Your task to perform on an android device: turn off wifi Image 0: 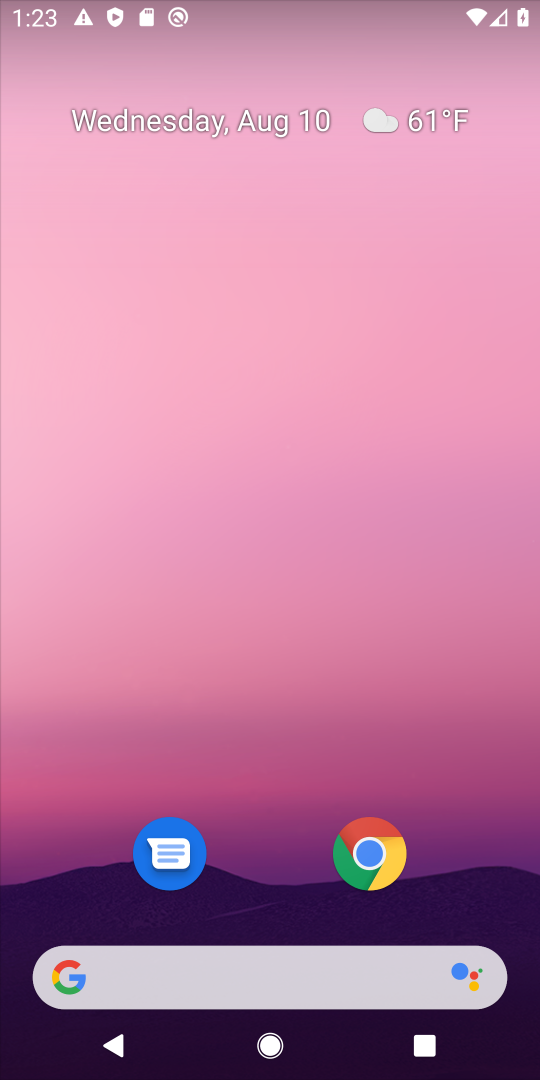
Step 0: drag from (305, 690) to (269, 248)
Your task to perform on an android device: turn off wifi Image 1: 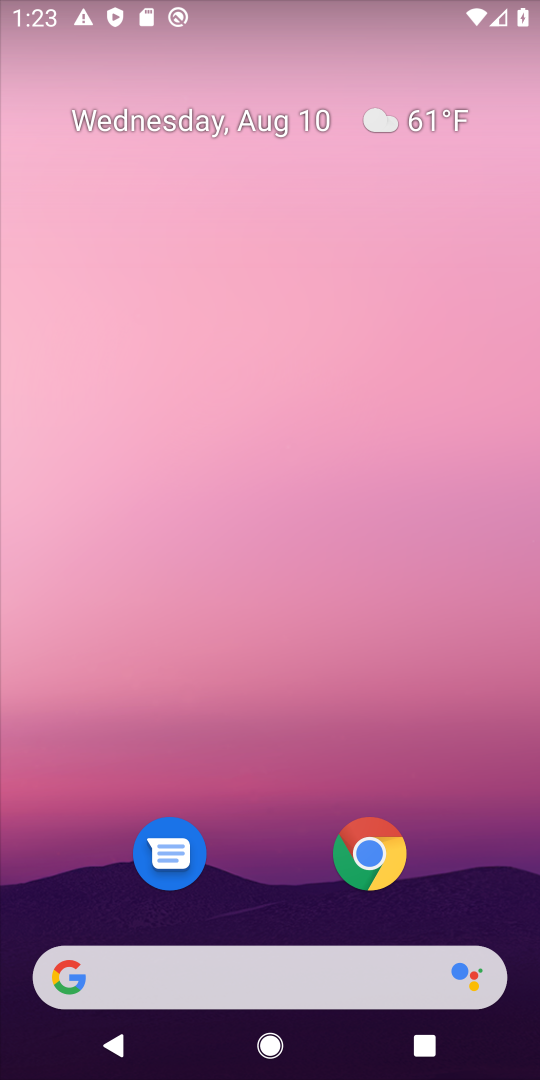
Step 1: drag from (278, 751) to (271, 155)
Your task to perform on an android device: turn off wifi Image 2: 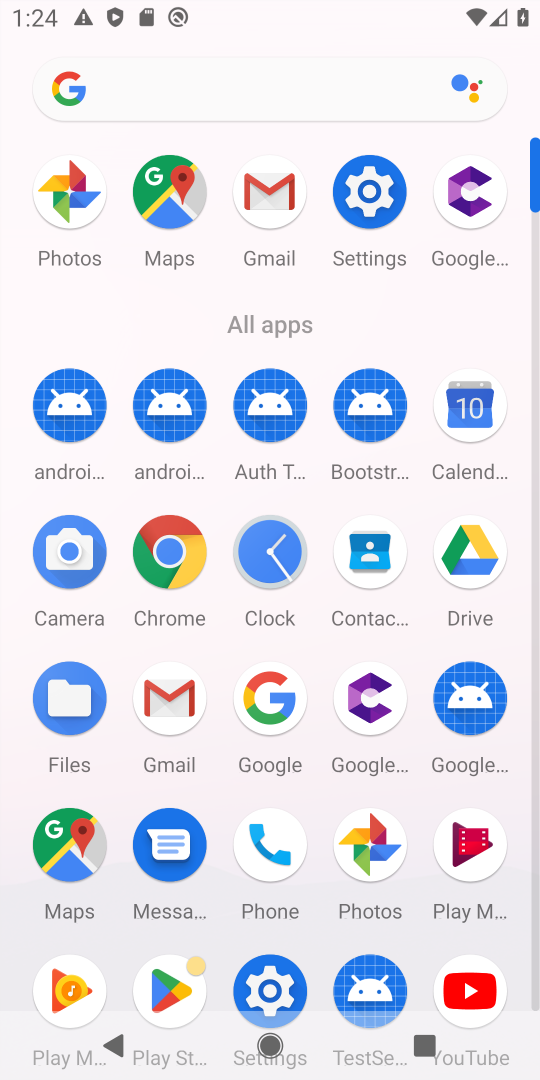
Step 2: click (357, 179)
Your task to perform on an android device: turn off wifi Image 3: 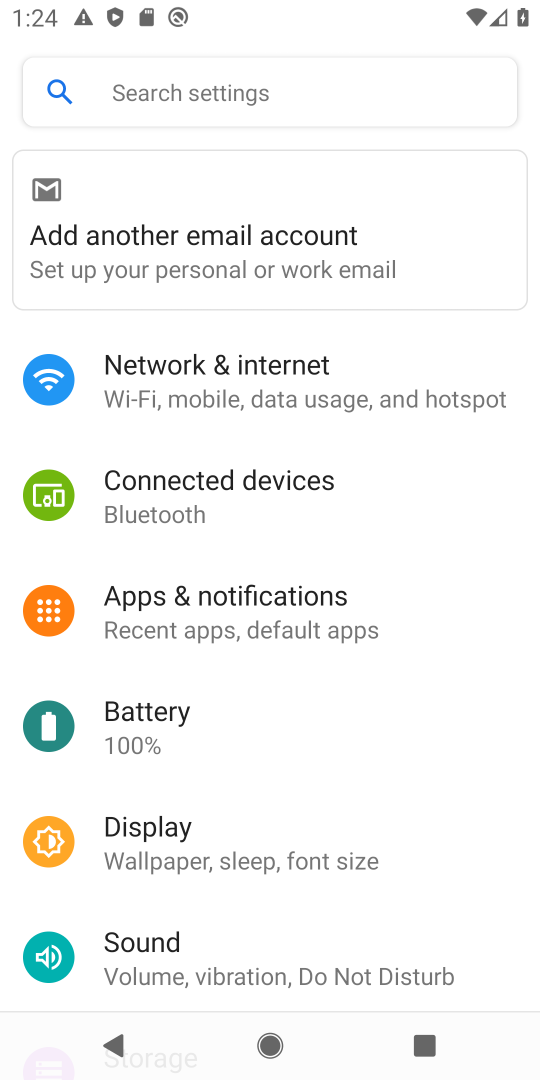
Step 3: click (324, 363)
Your task to perform on an android device: turn off wifi Image 4: 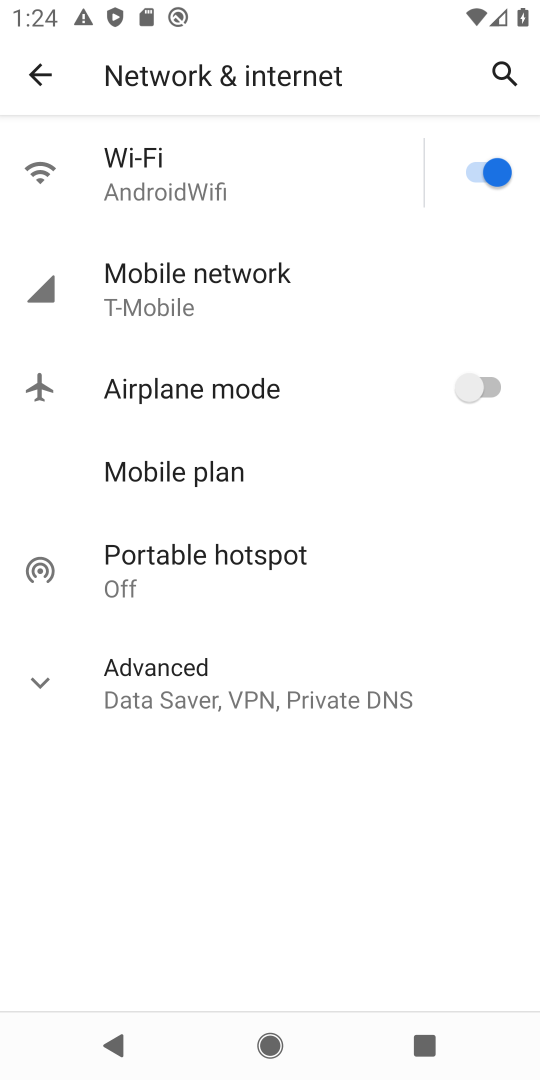
Step 4: task complete